Your task to perform on an android device: turn on javascript in the chrome app Image 0: 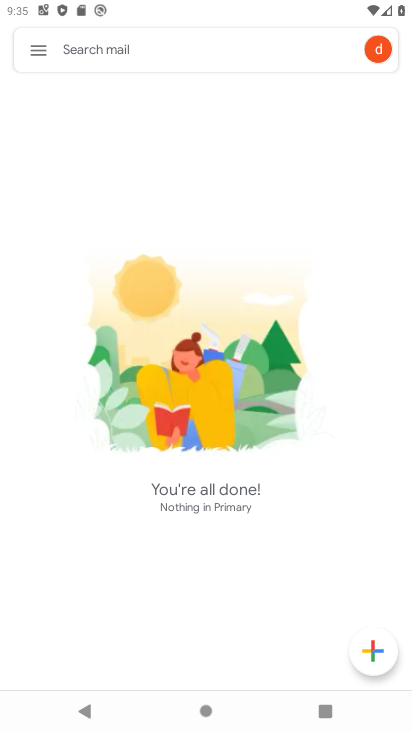
Step 0: press home button
Your task to perform on an android device: turn on javascript in the chrome app Image 1: 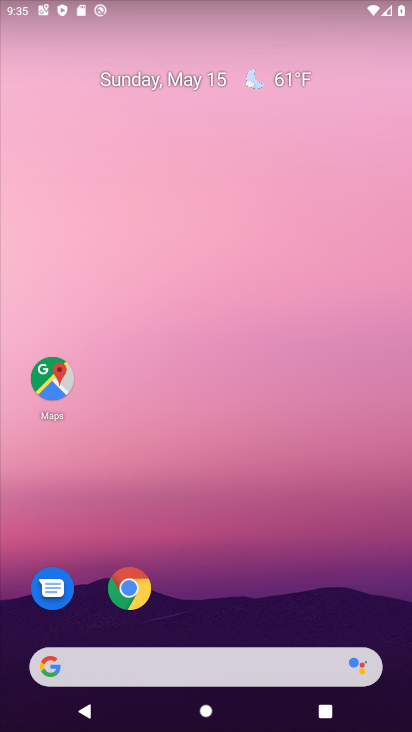
Step 1: click (227, 575)
Your task to perform on an android device: turn on javascript in the chrome app Image 2: 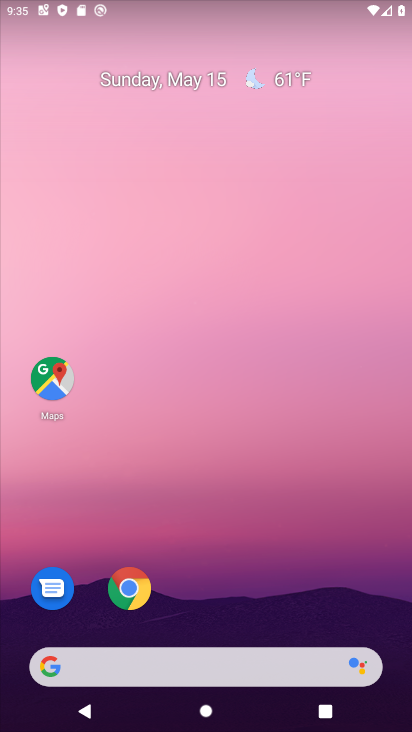
Step 2: click (137, 591)
Your task to perform on an android device: turn on javascript in the chrome app Image 3: 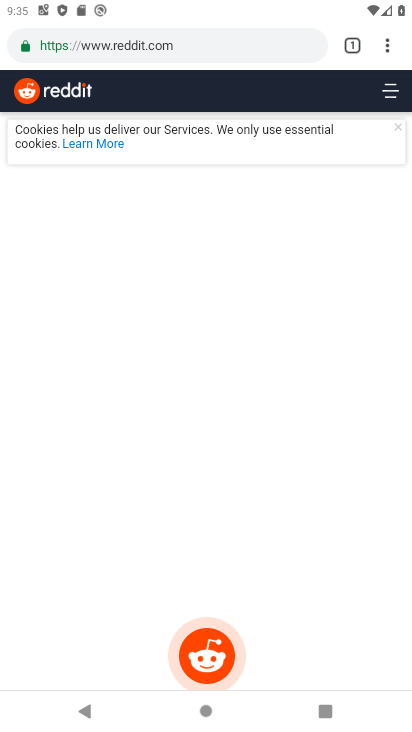
Step 3: click (387, 44)
Your task to perform on an android device: turn on javascript in the chrome app Image 4: 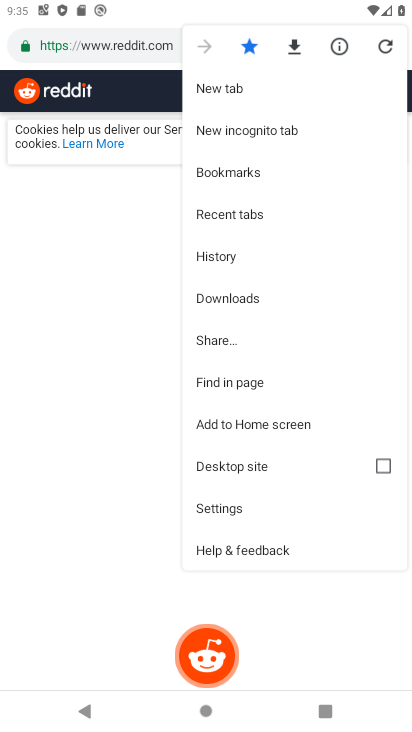
Step 4: click (223, 508)
Your task to perform on an android device: turn on javascript in the chrome app Image 5: 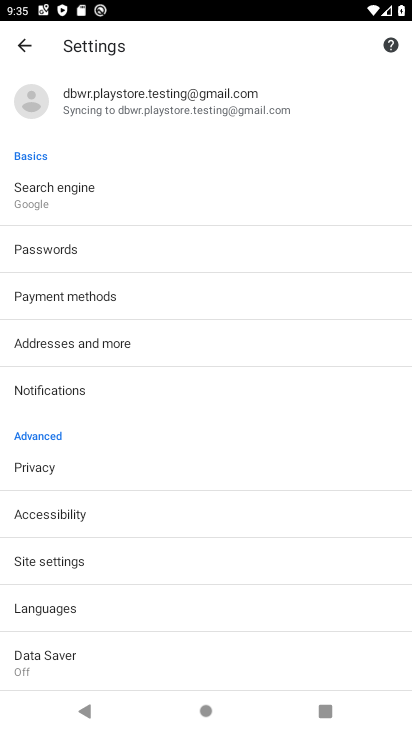
Step 5: click (62, 558)
Your task to perform on an android device: turn on javascript in the chrome app Image 6: 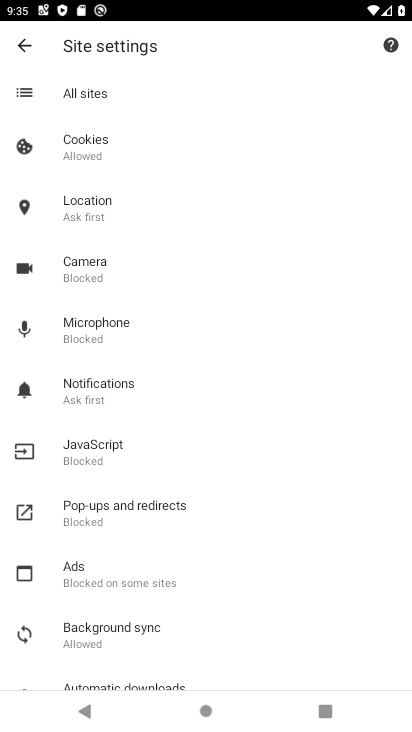
Step 6: click (103, 478)
Your task to perform on an android device: turn on javascript in the chrome app Image 7: 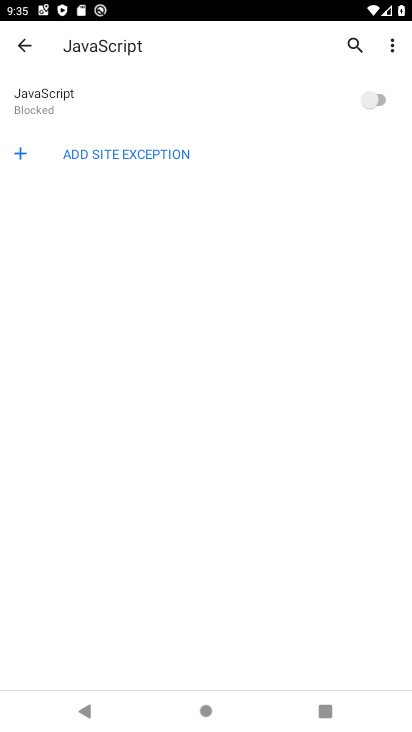
Step 7: click (389, 97)
Your task to perform on an android device: turn on javascript in the chrome app Image 8: 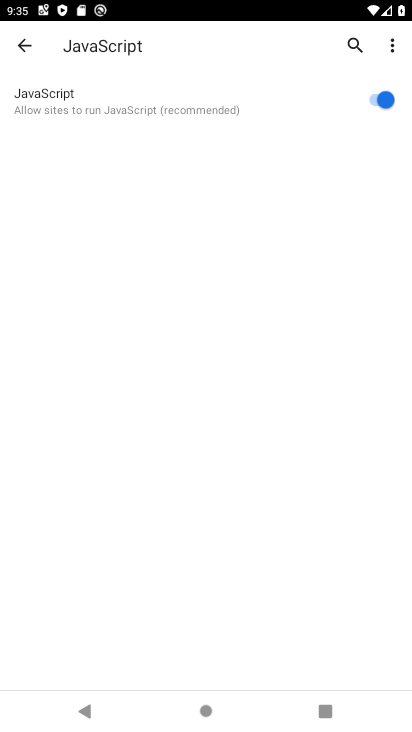
Step 8: task complete